Your task to perform on an android device: find which apps use the phone's location Image 0: 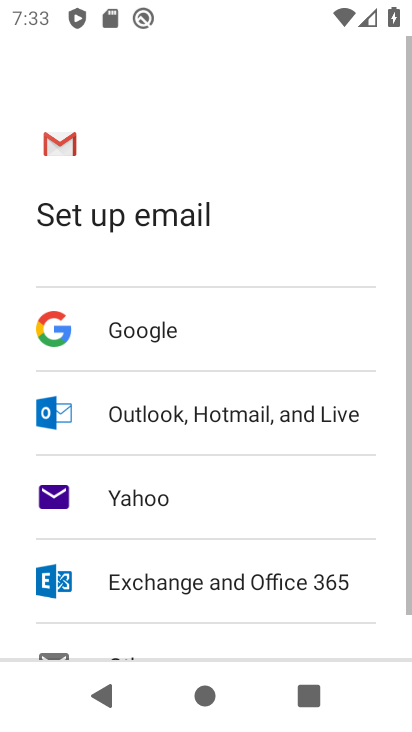
Step 0: press home button
Your task to perform on an android device: find which apps use the phone's location Image 1: 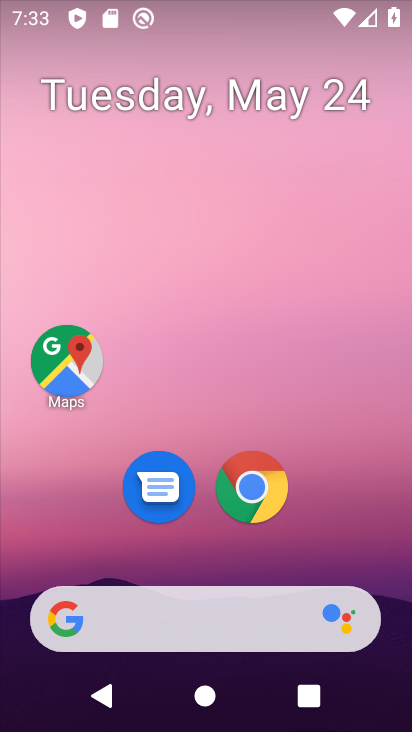
Step 1: drag from (336, 532) to (312, 112)
Your task to perform on an android device: find which apps use the phone's location Image 2: 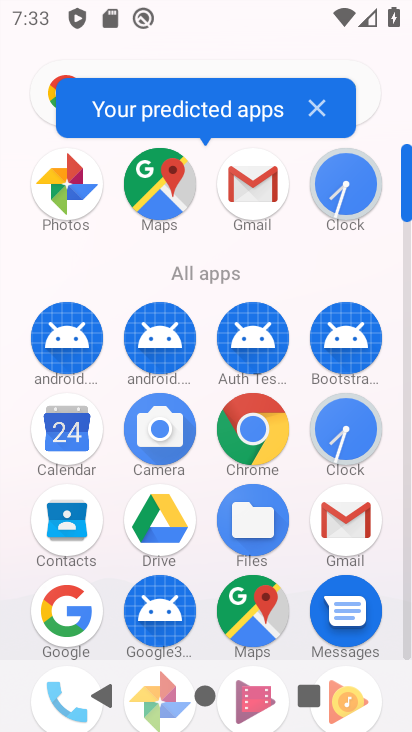
Step 2: drag from (287, 284) to (297, 31)
Your task to perform on an android device: find which apps use the phone's location Image 3: 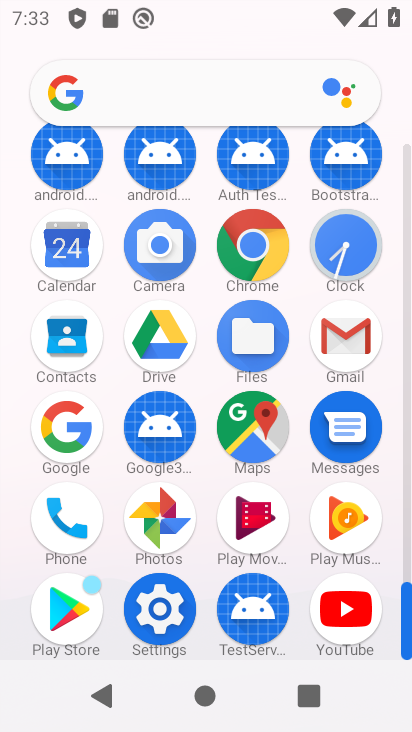
Step 3: click (59, 522)
Your task to perform on an android device: find which apps use the phone's location Image 4: 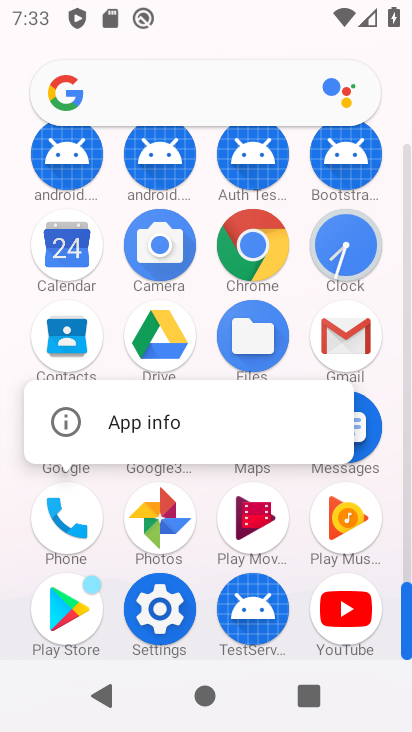
Step 4: click (129, 422)
Your task to perform on an android device: find which apps use the phone's location Image 5: 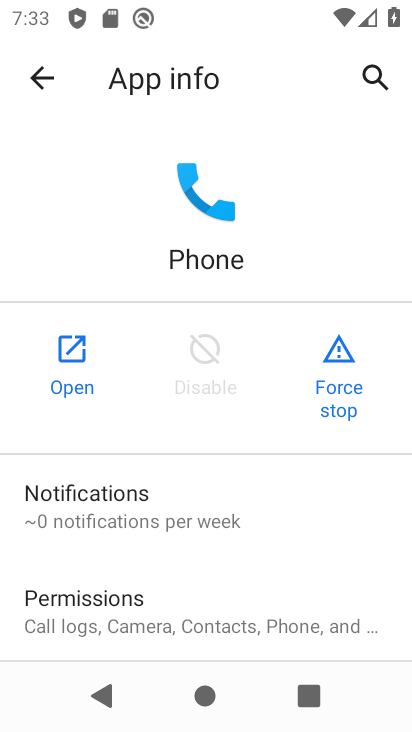
Step 5: click (55, 615)
Your task to perform on an android device: find which apps use the phone's location Image 6: 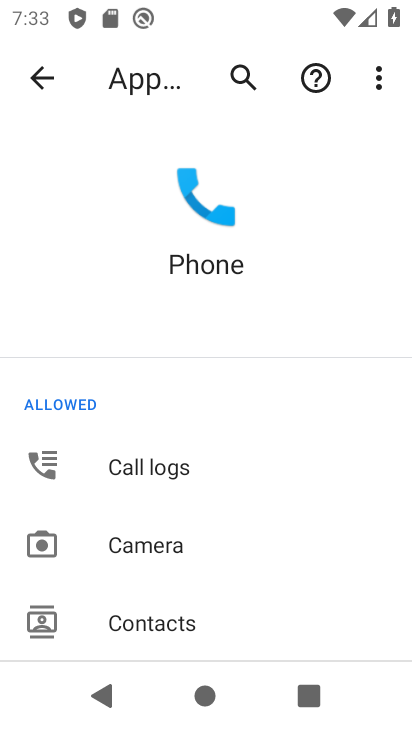
Step 6: drag from (280, 570) to (252, 162)
Your task to perform on an android device: find which apps use the phone's location Image 7: 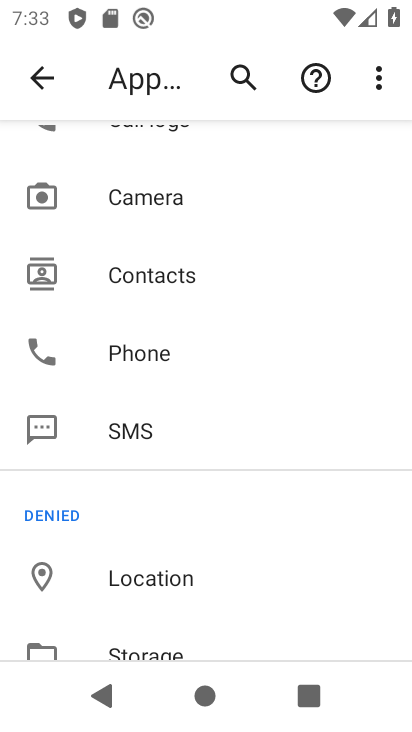
Step 7: click (166, 572)
Your task to perform on an android device: find which apps use the phone's location Image 8: 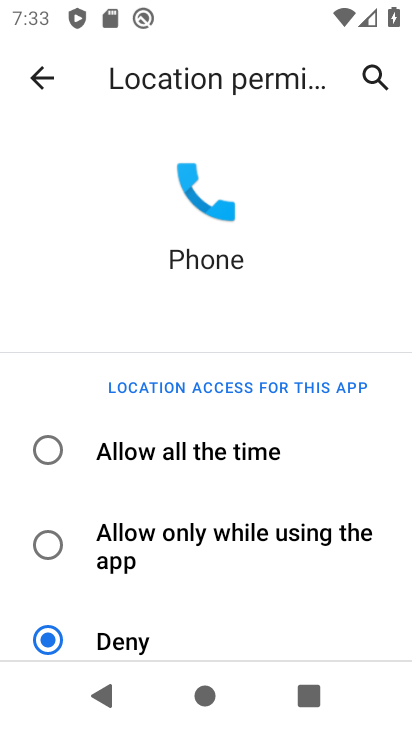
Step 8: task complete